Your task to perform on an android device: allow cookies in the chrome app Image 0: 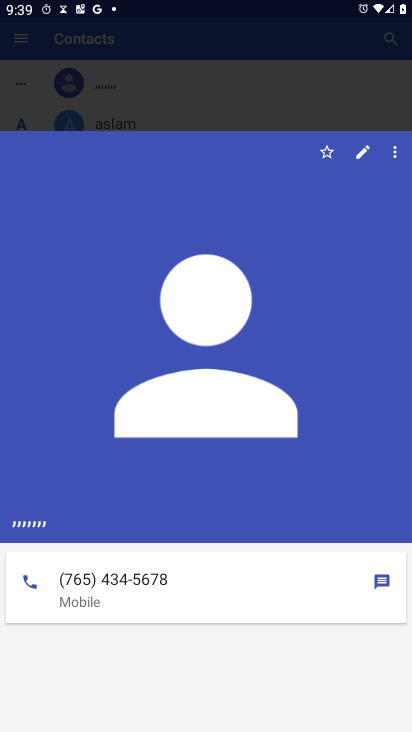
Step 0: press back button
Your task to perform on an android device: allow cookies in the chrome app Image 1: 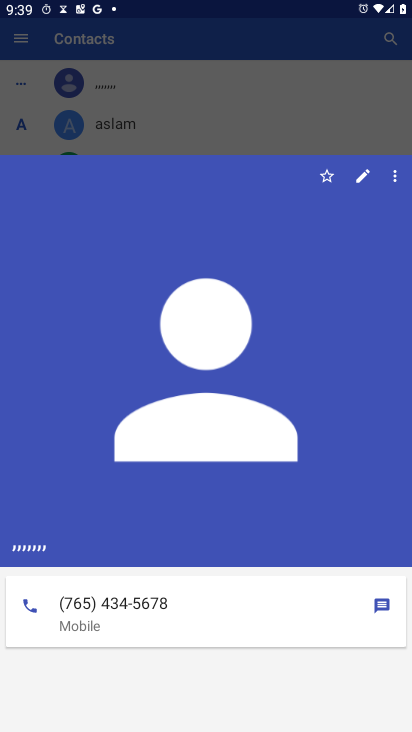
Step 1: press back button
Your task to perform on an android device: allow cookies in the chrome app Image 2: 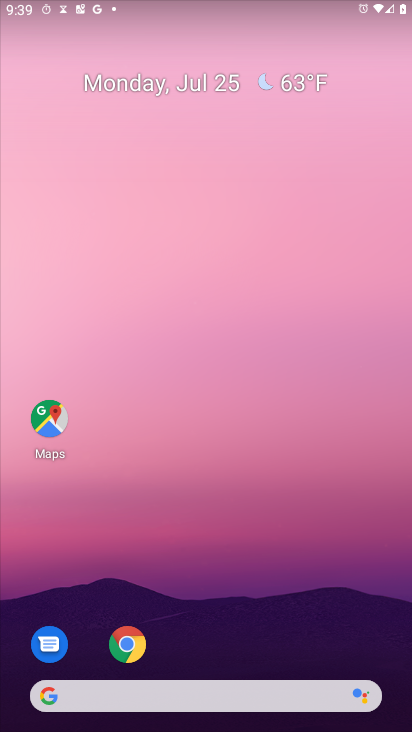
Step 2: drag from (302, 714) to (289, 278)
Your task to perform on an android device: allow cookies in the chrome app Image 3: 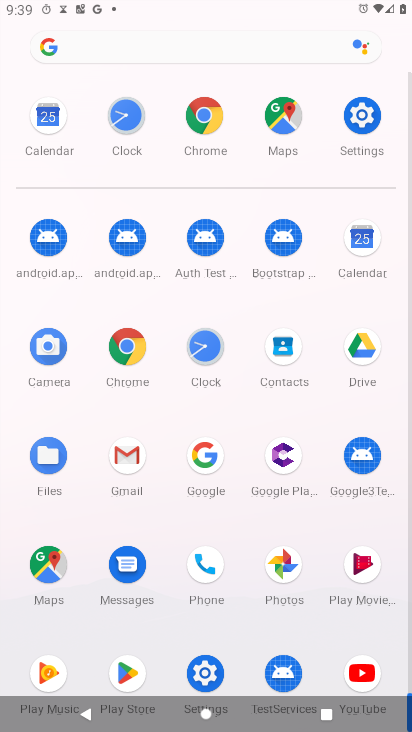
Step 3: click (209, 108)
Your task to perform on an android device: allow cookies in the chrome app Image 4: 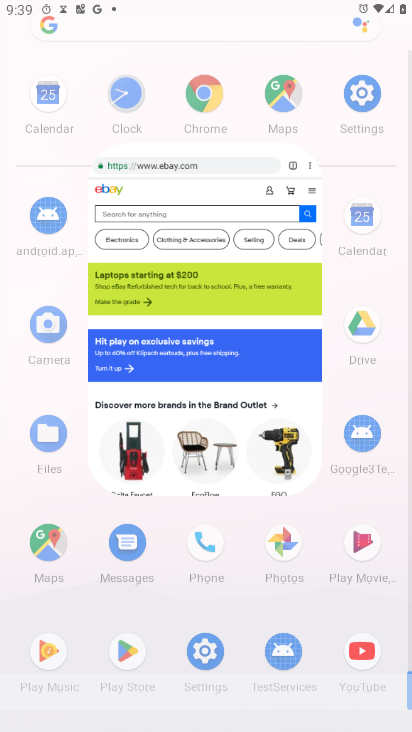
Step 4: click (207, 109)
Your task to perform on an android device: allow cookies in the chrome app Image 5: 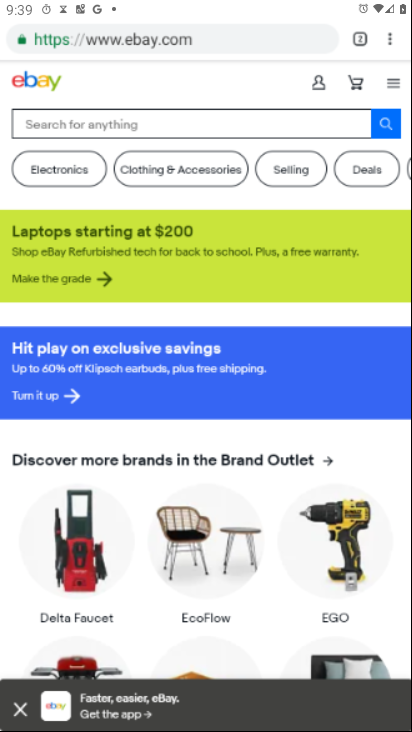
Step 5: click (210, 113)
Your task to perform on an android device: allow cookies in the chrome app Image 6: 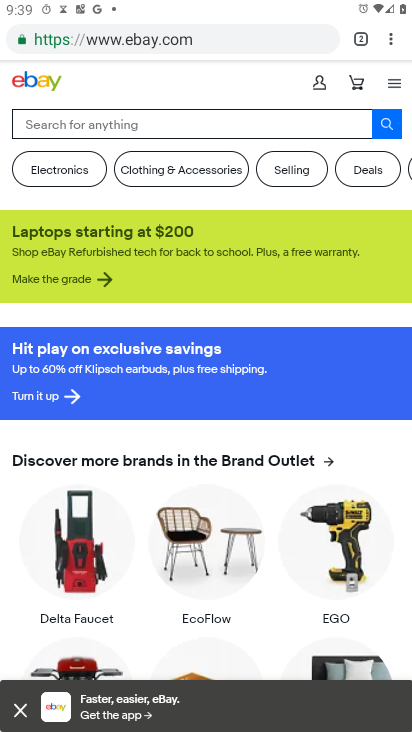
Step 6: click (389, 50)
Your task to perform on an android device: allow cookies in the chrome app Image 7: 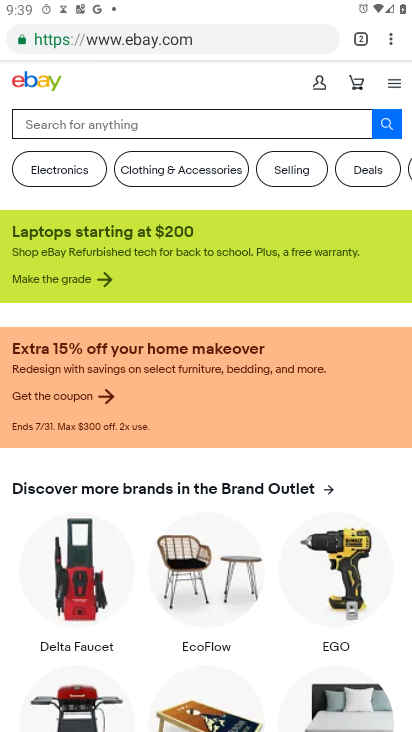
Step 7: click (393, 37)
Your task to perform on an android device: allow cookies in the chrome app Image 8: 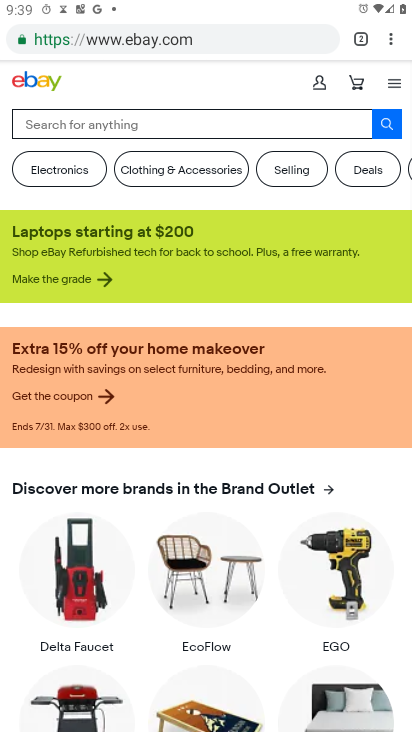
Step 8: click (394, 38)
Your task to perform on an android device: allow cookies in the chrome app Image 9: 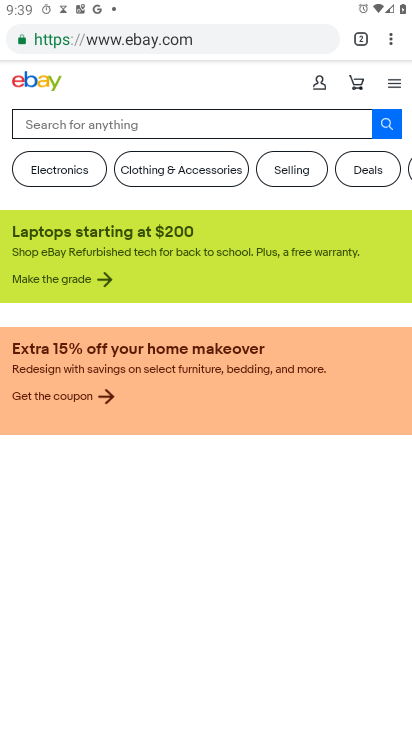
Step 9: drag from (393, 37) to (243, 435)
Your task to perform on an android device: allow cookies in the chrome app Image 10: 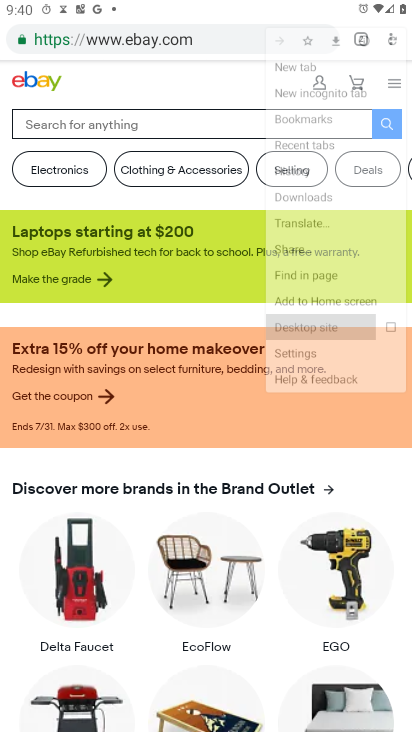
Step 10: click (389, 38)
Your task to perform on an android device: allow cookies in the chrome app Image 11: 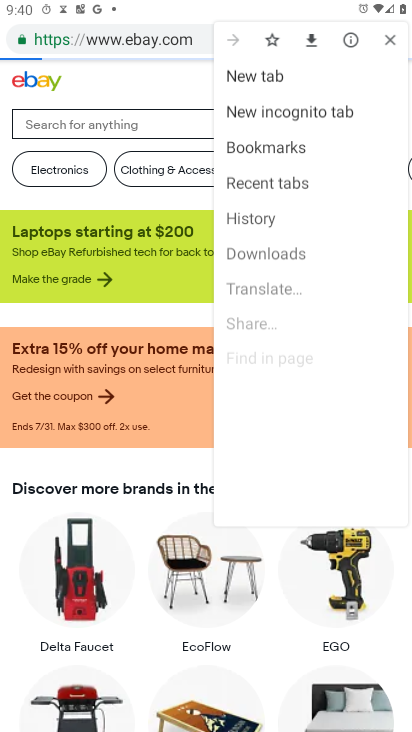
Step 11: click (382, 41)
Your task to perform on an android device: allow cookies in the chrome app Image 12: 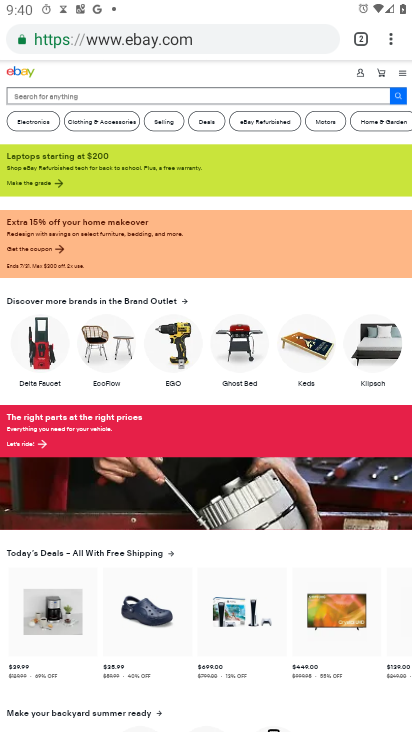
Step 12: click (270, 468)
Your task to perform on an android device: allow cookies in the chrome app Image 13: 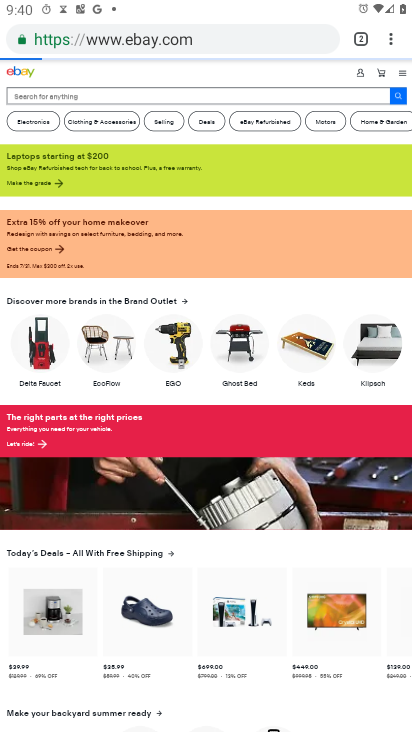
Step 13: drag from (400, 31) to (251, 474)
Your task to perform on an android device: allow cookies in the chrome app Image 14: 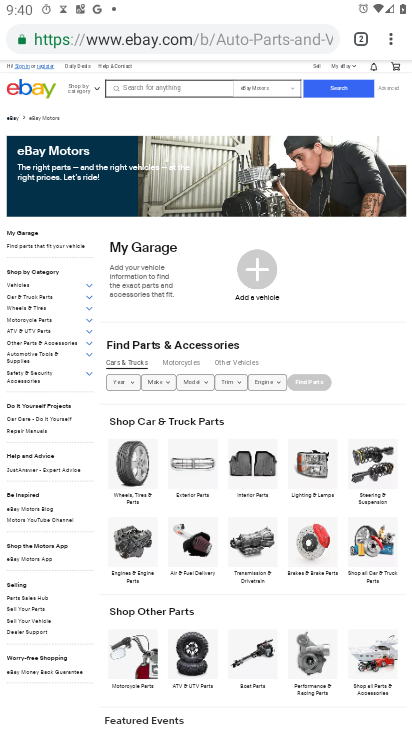
Step 14: click (250, 461)
Your task to perform on an android device: allow cookies in the chrome app Image 15: 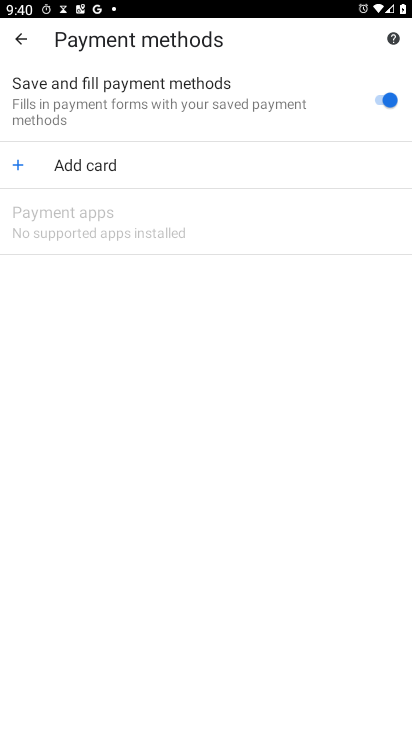
Step 15: click (20, 29)
Your task to perform on an android device: allow cookies in the chrome app Image 16: 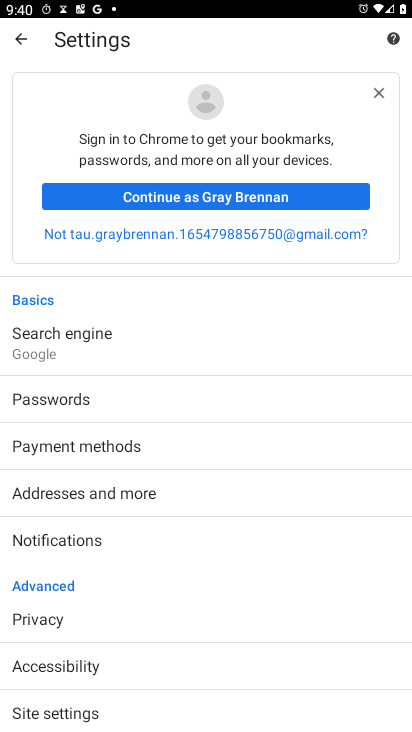
Step 16: drag from (111, 623) to (151, 306)
Your task to perform on an android device: allow cookies in the chrome app Image 17: 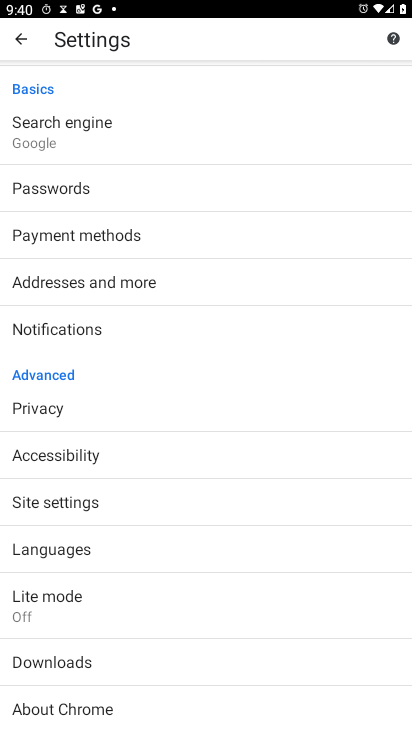
Step 17: click (35, 491)
Your task to perform on an android device: allow cookies in the chrome app Image 18: 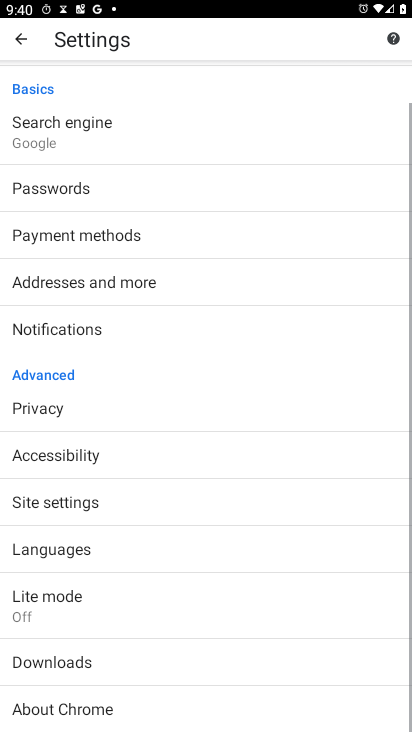
Step 18: click (52, 502)
Your task to perform on an android device: allow cookies in the chrome app Image 19: 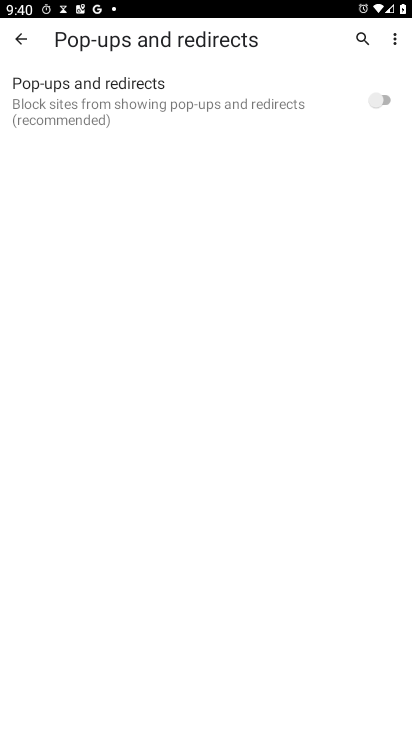
Step 19: click (34, 45)
Your task to perform on an android device: allow cookies in the chrome app Image 20: 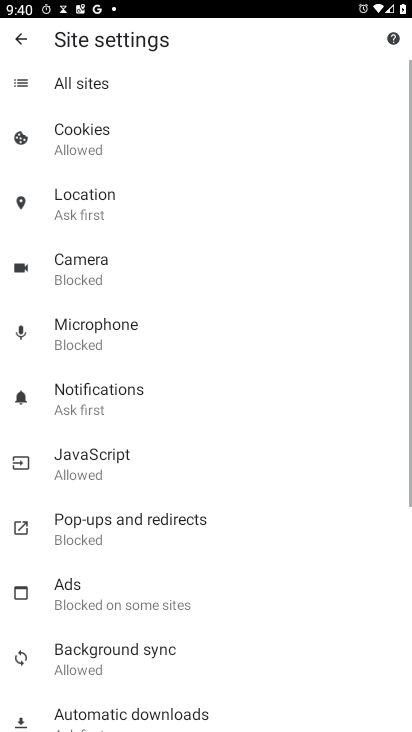
Step 20: click (76, 145)
Your task to perform on an android device: allow cookies in the chrome app Image 21: 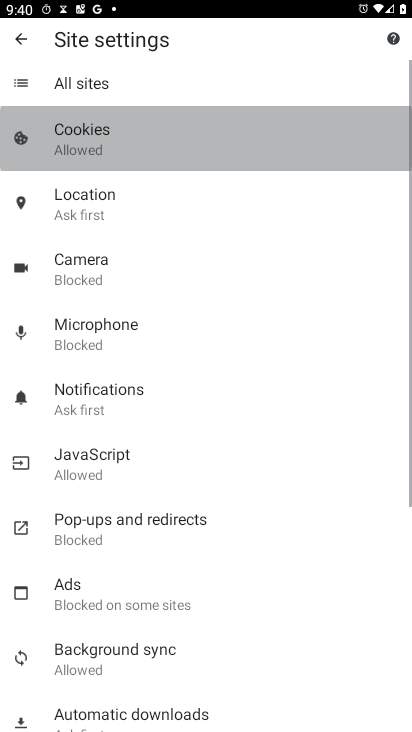
Step 21: click (75, 140)
Your task to perform on an android device: allow cookies in the chrome app Image 22: 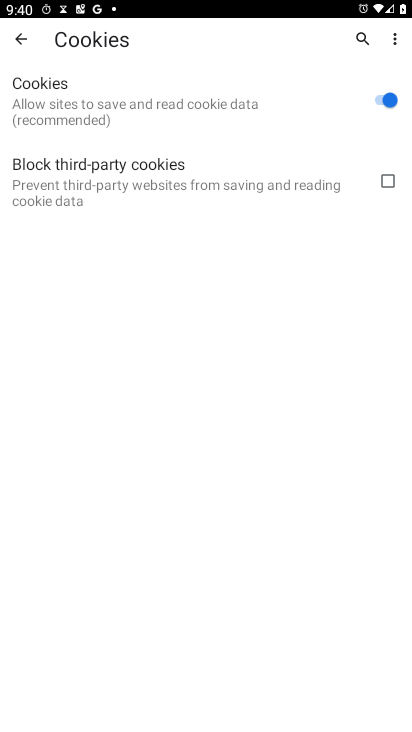
Step 22: task complete